Your task to perform on an android device: choose inbox layout in the gmail app Image 0: 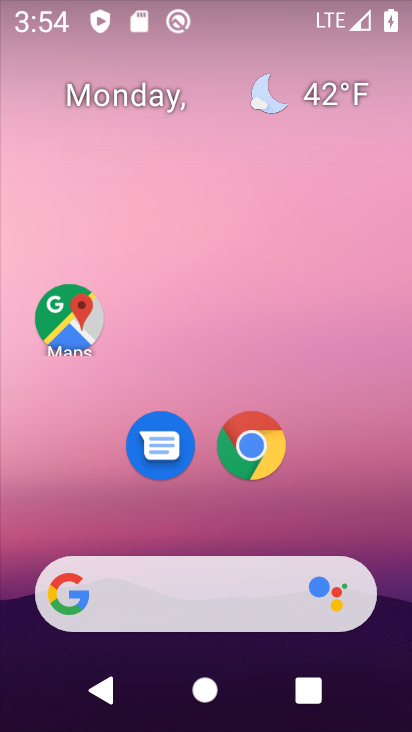
Step 0: drag from (16, 500) to (207, 42)
Your task to perform on an android device: choose inbox layout in the gmail app Image 1: 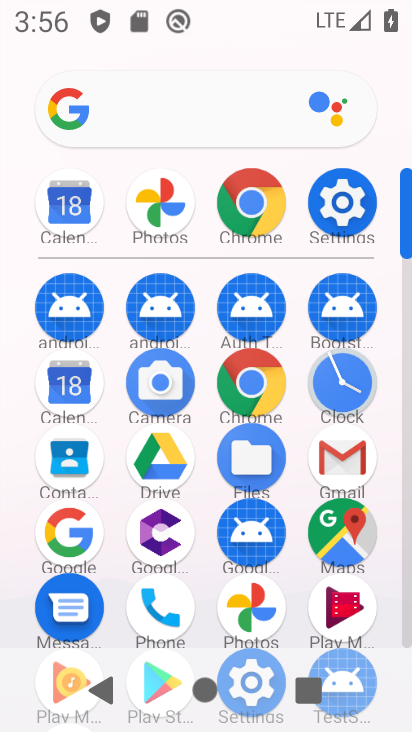
Step 1: click (351, 471)
Your task to perform on an android device: choose inbox layout in the gmail app Image 2: 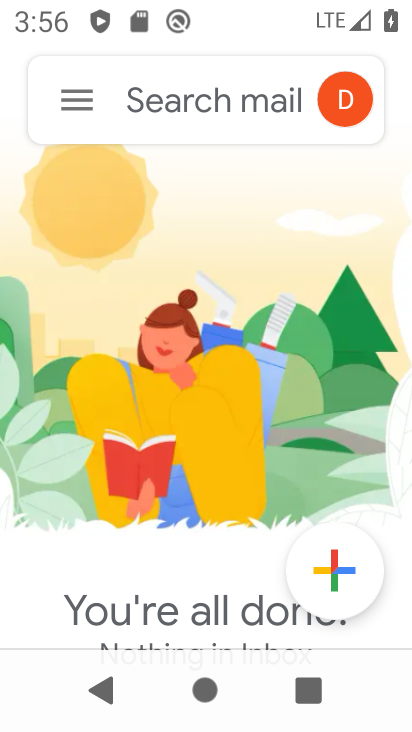
Step 2: task complete